Your task to perform on an android device: Go to wifi settings Image 0: 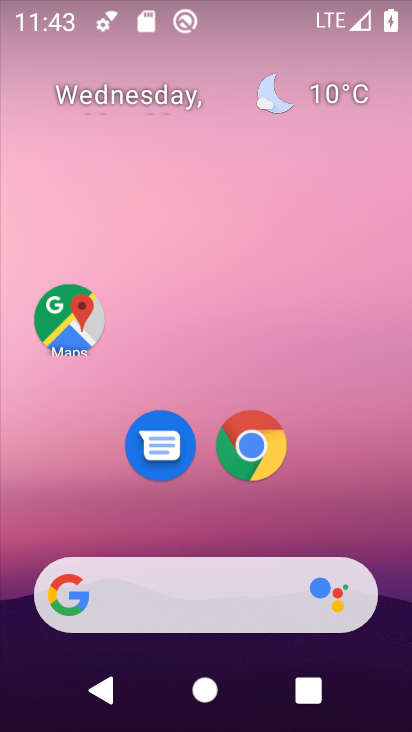
Step 0: drag from (217, 12) to (214, 608)
Your task to perform on an android device: Go to wifi settings Image 1: 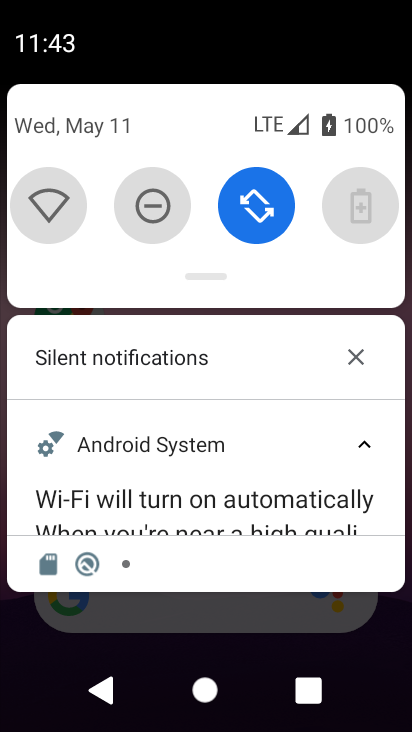
Step 1: click (48, 202)
Your task to perform on an android device: Go to wifi settings Image 2: 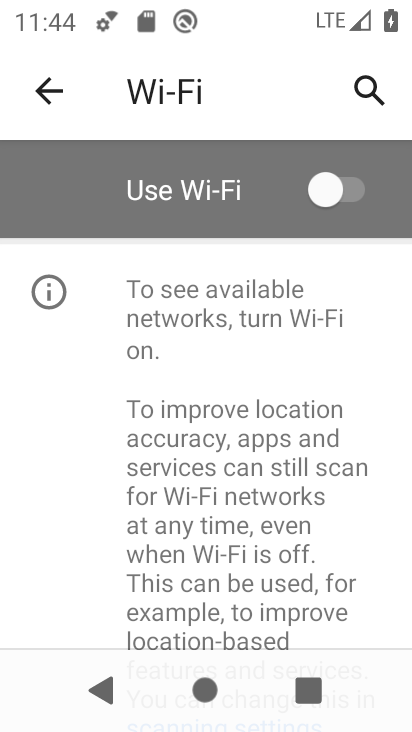
Step 2: task complete